Your task to perform on an android device: turn off wifi Image 0: 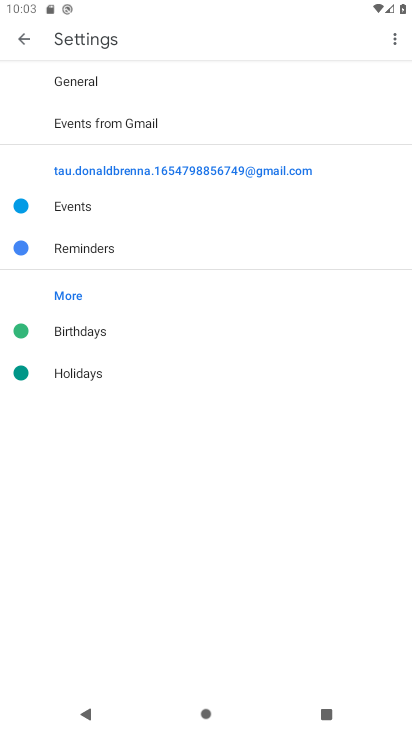
Step 0: press home button
Your task to perform on an android device: turn off wifi Image 1: 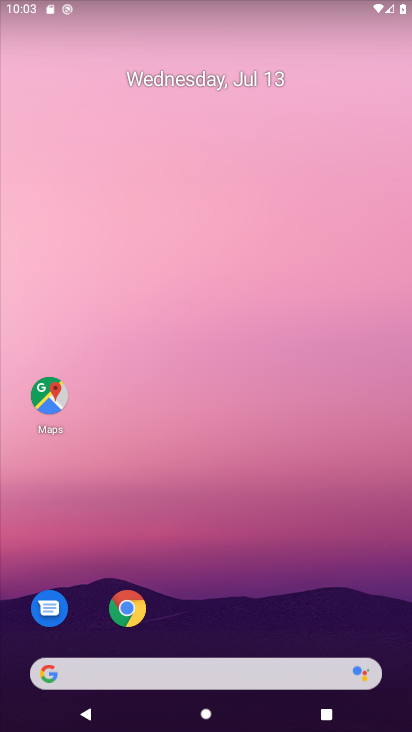
Step 1: drag from (289, 540) to (329, 12)
Your task to perform on an android device: turn off wifi Image 2: 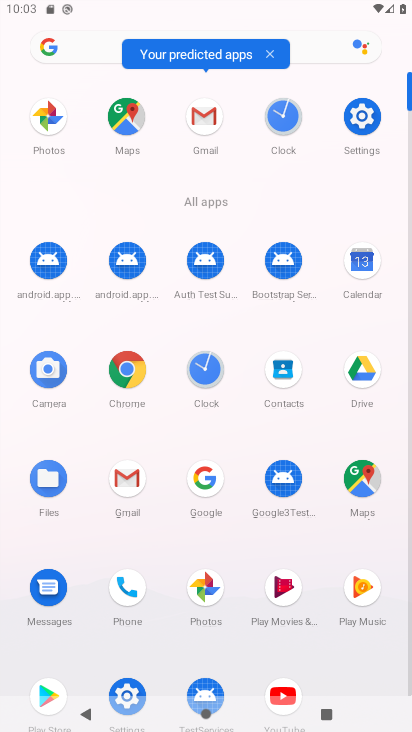
Step 2: click (362, 103)
Your task to perform on an android device: turn off wifi Image 3: 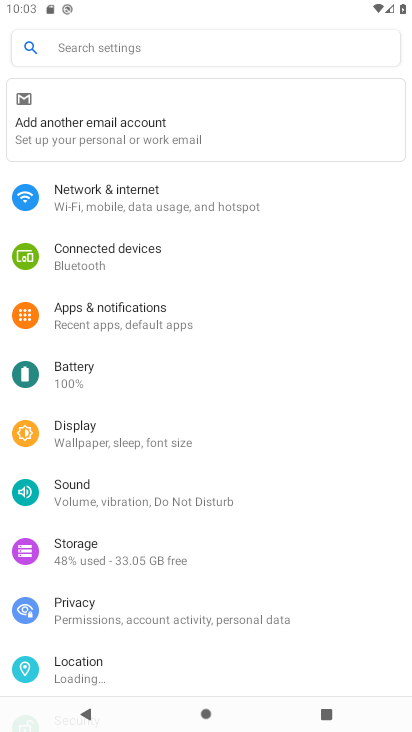
Step 3: click (112, 198)
Your task to perform on an android device: turn off wifi Image 4: 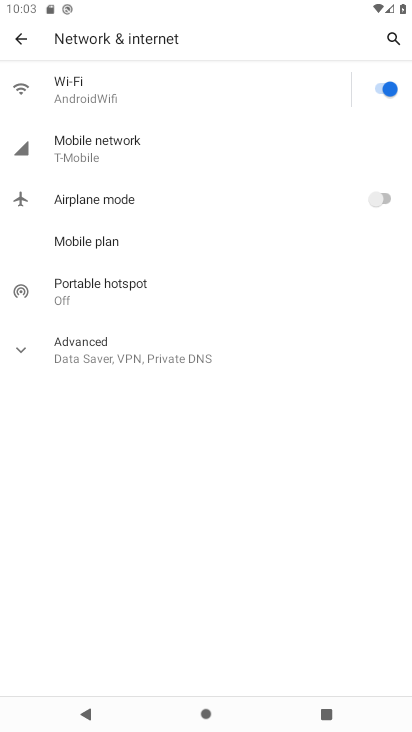
Step 4: click (380, 88)
Your task to perform on an android device: turn off wifi Image 5: 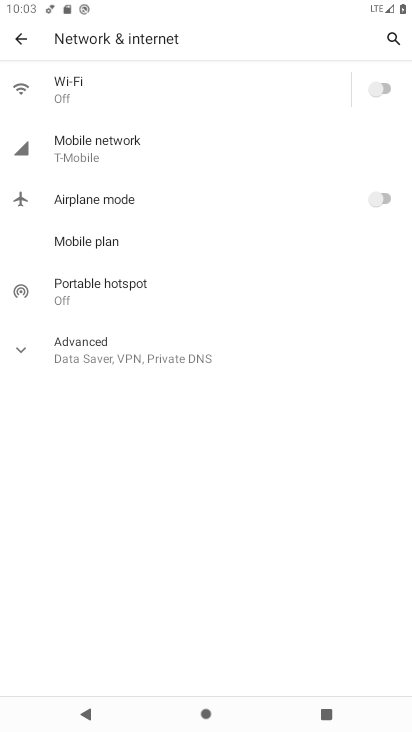
Step 5: task complete